Your task to perform on an android device: Open sound settings Image 0: 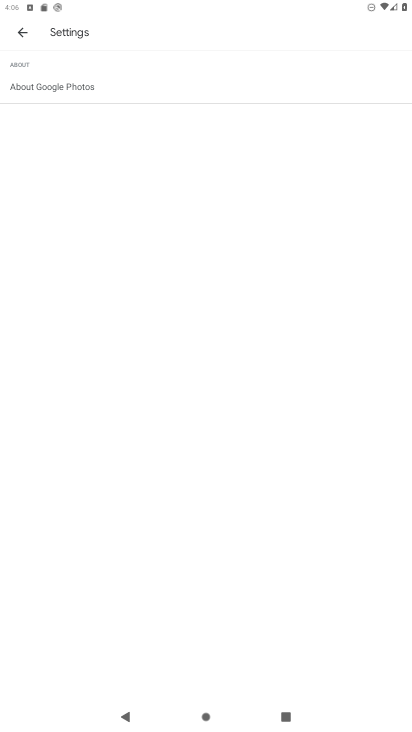
Step 0: press home button
Your task to perform on an android device: Open sound settings Image 1: 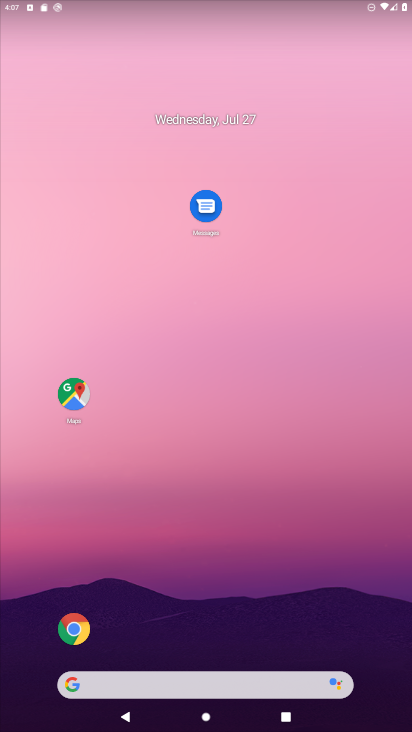
Step 1: drag from (129, 644) to (165, 82)
Your task to perform on an android device: Open sound settings Image 2: 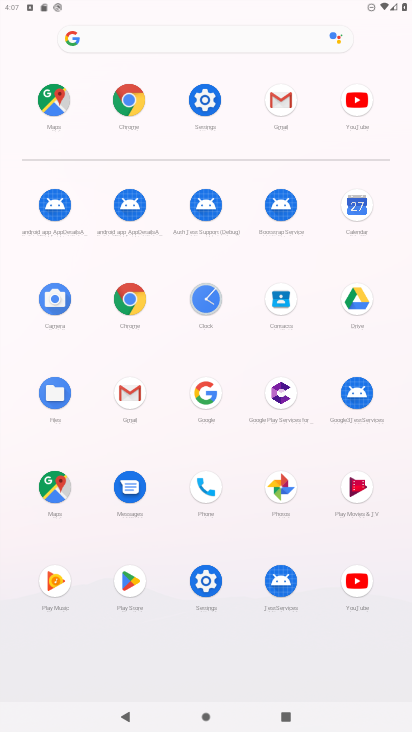
Step 2: click (209, 83)
Your task to perform on an android device: Open sound settings Image 3: 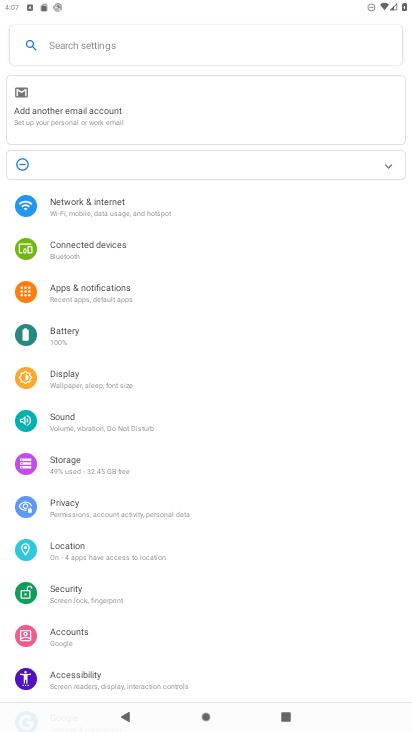
Step 3: click (92, 438)
Your task to perform on an android device: Open sound settings Image 4: 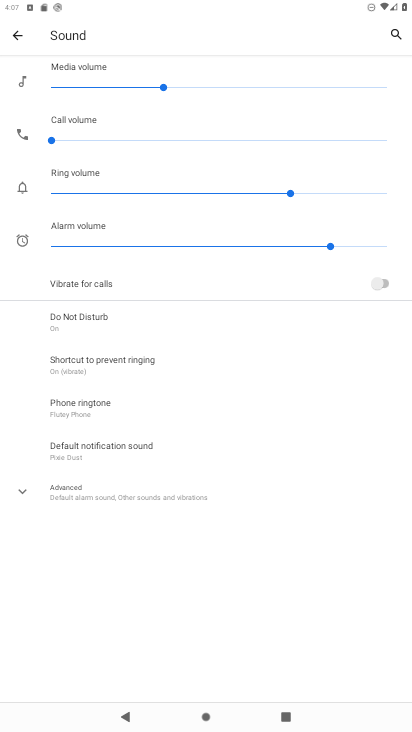
Step 4: task complete